Your task to perform on an android device: open sync settings in chrome Image 0: 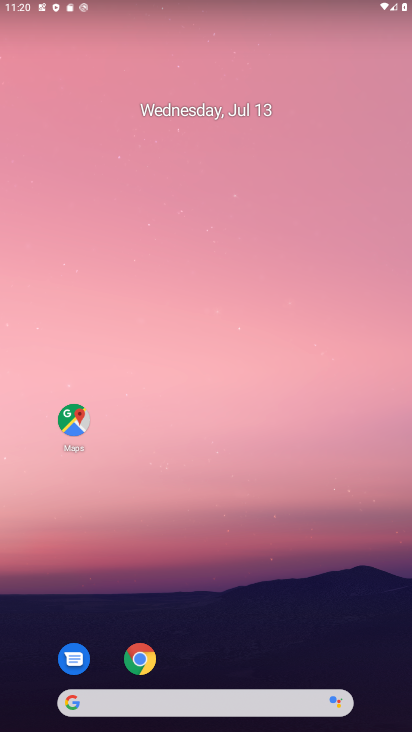
Step 0: click (135, 660)
Your task to perform on an android device: open sync settings in chrome Image 1: 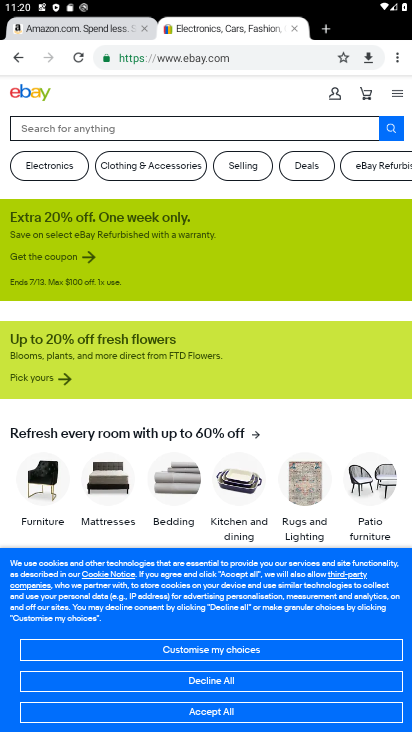
Step 1: click (399, 54)
Your task to perform on an android device: open sync settings in chrome Image 2: 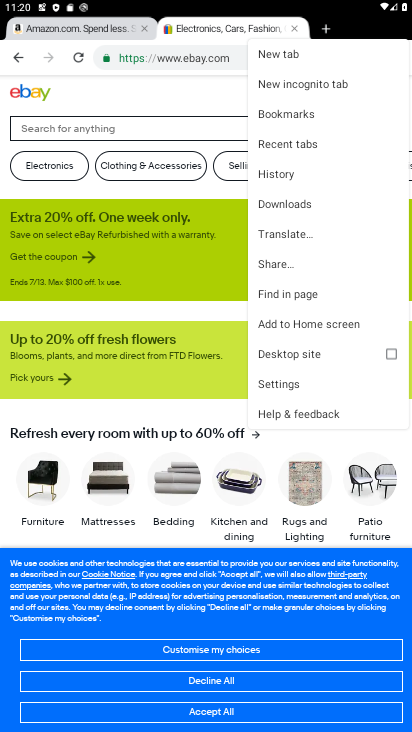
Step 2: click (346, 386)
Your task to perform on an android device: open sync settings in chrome Image 3: 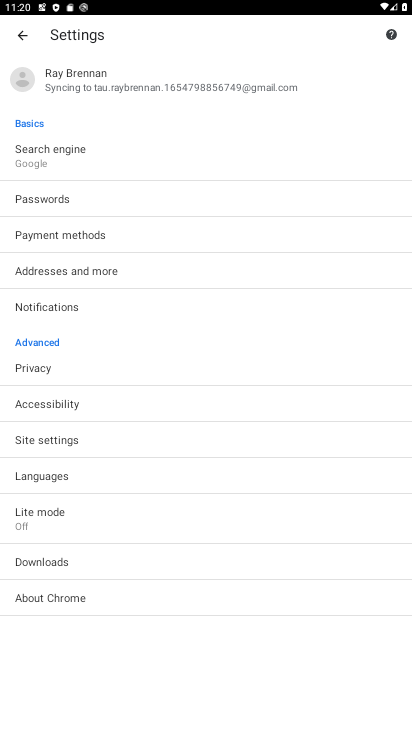
Step 3: click (91, 90)
Your task to perform on an android device: open sync settings in chrome Image 4: 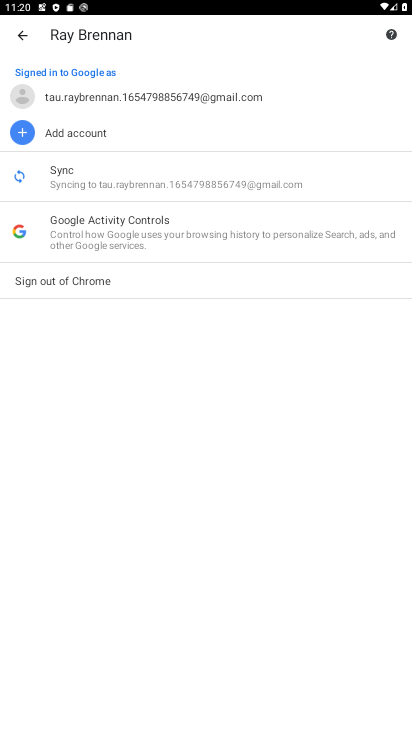
Step 4: click (120, 178)
Your task to perform on an android device: open sync settings in chrome Image 5: 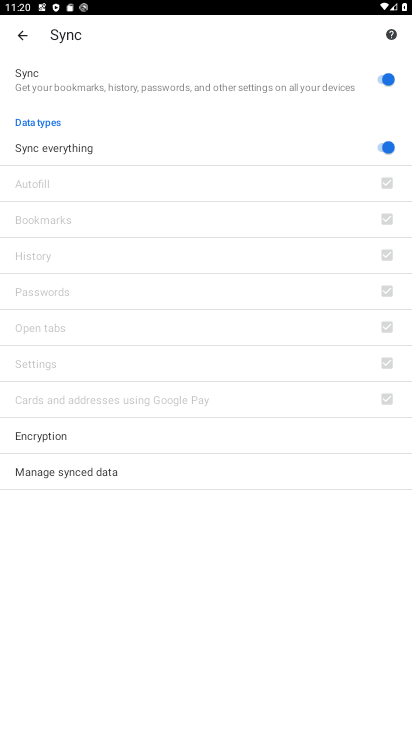
Step 5: task complete